Your task to perform on an android device: Open maps Image 0: 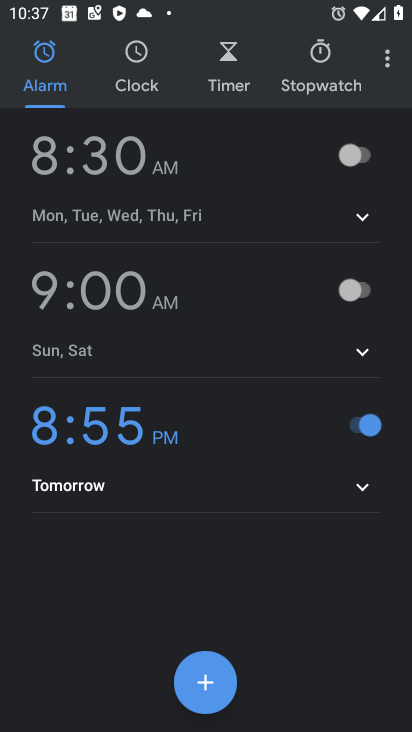
Step 0: press home button
Your task to perform on an android device: Open maps Image 1: 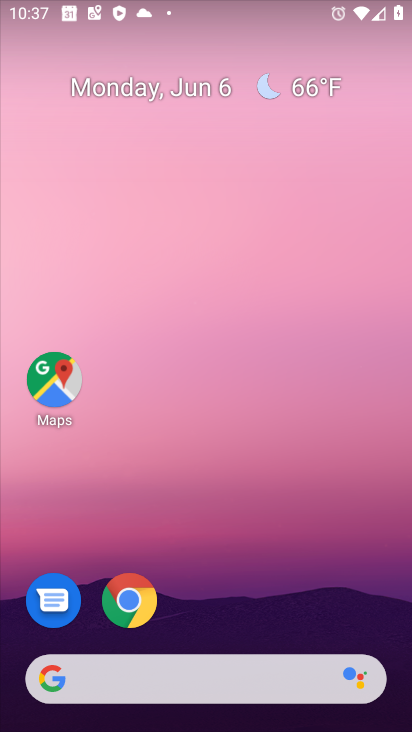
Step 1: click (55, 381)
Your task to perform on an android device: Open maps Image 2: 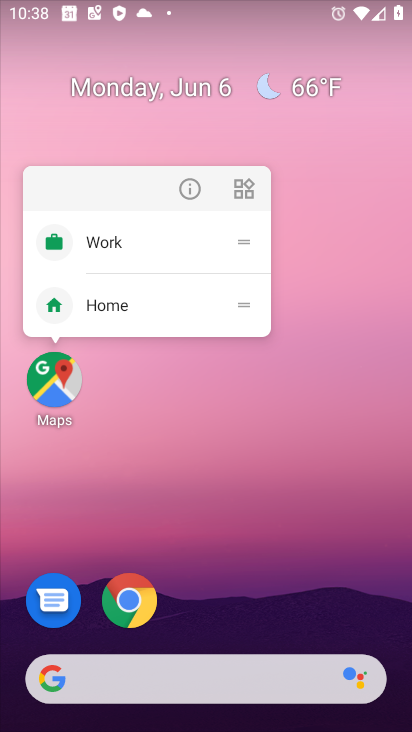
Step 2: click (58, 392)
Your task to perform on an android device: Open maps Image 3: 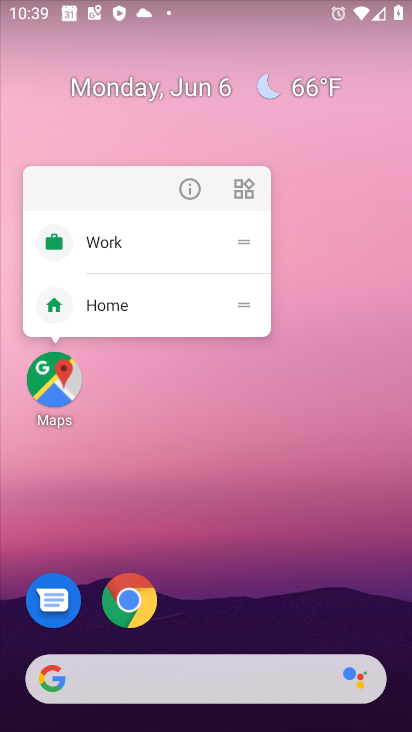
Step 3: click (52, 384)
Your task to perform on an android device: Open maps Image 4: 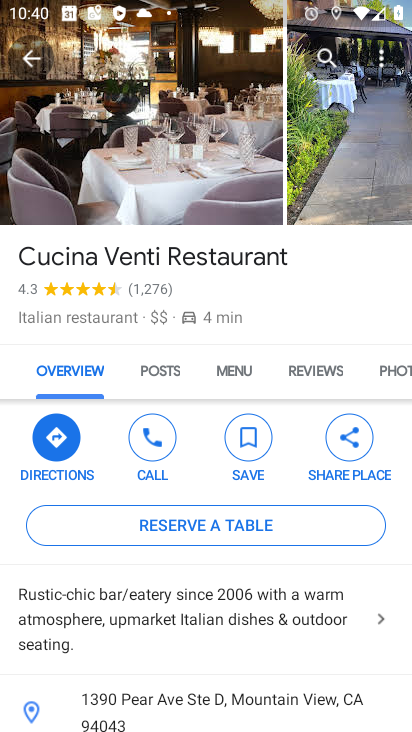
Step 4: task complete